Your task to perform on an android device: turn off sleep mode Image 0: 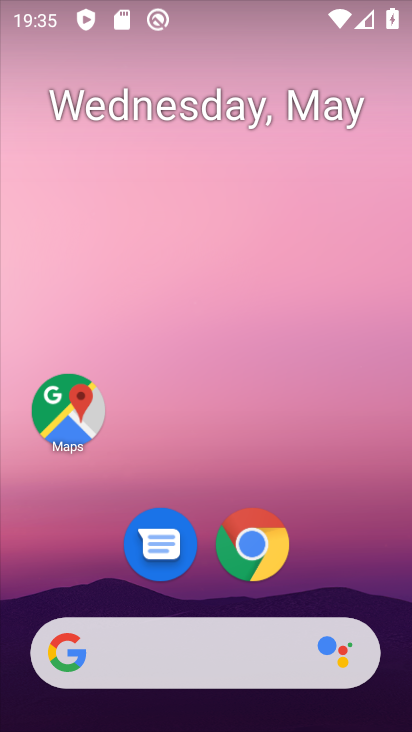
Step 0: drag from (204, 579) to (292, 2)
Your task to perform on an android device: turn off sleep mode Image 1: 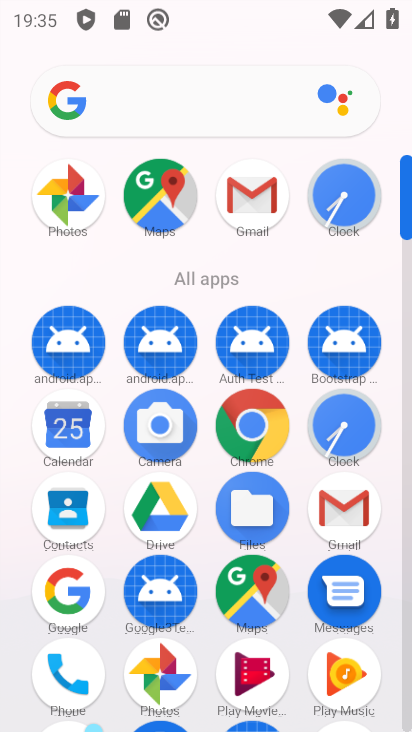
Step 1: drag from (116, 552) to (196, 127)
Your task to perform on an android device: turn off sleep mode Image 2: 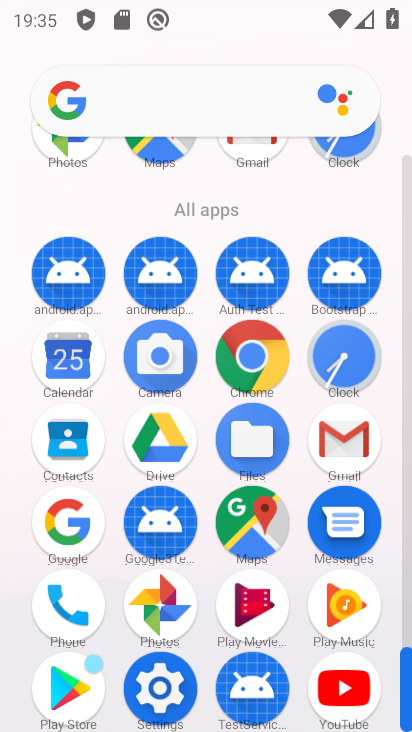
Step 2: click (150, 680)
Your task to perform on an android device: turn off sleep mode Image 3: 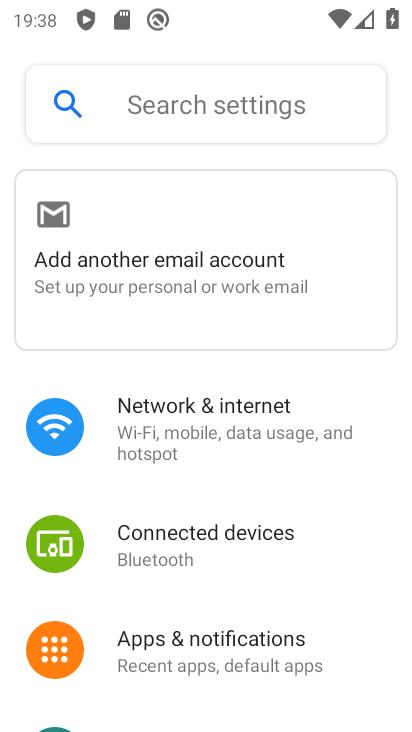
Step 3: task complete